Your task to perform on an android device: What's on my calendar today? Image 0: 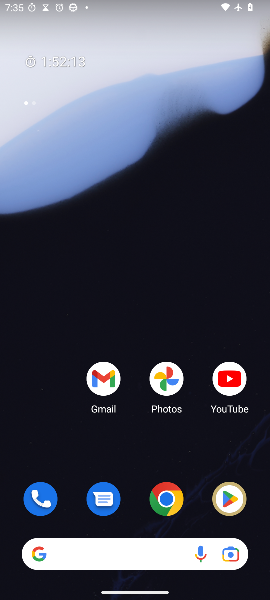
Step 0: drag from (86, 559) to (161, 78)
Your task to perform on an android device: What's on my calendar today? Image 1: 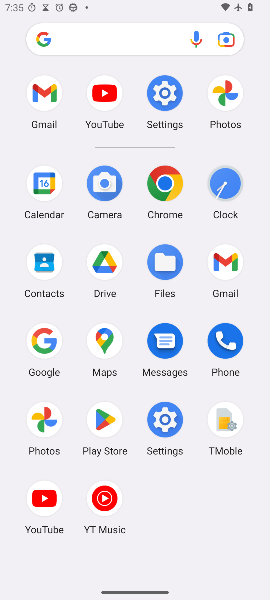
Step 1: click (44, 189)
Your task to perform on an android device: What's on my calendar today? Image 2: 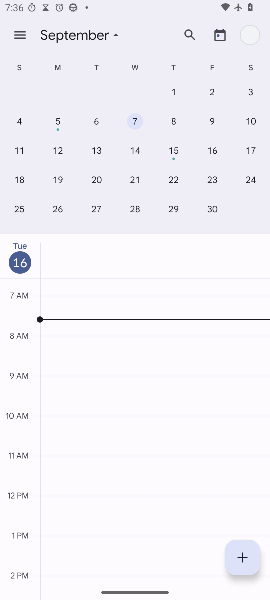
Step 2: task complete